Your task to perform on an android device: change notification settings in the gmail app Image 0: 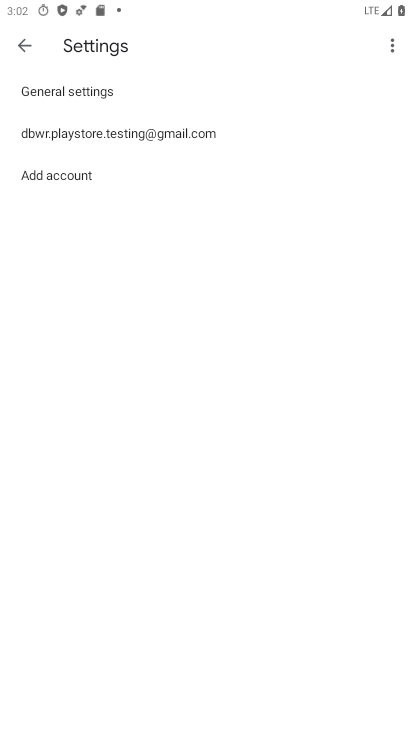
Step 0: click (102, 136)
Your task to perform on an android device: change notification settings in the gmail app Image 1: 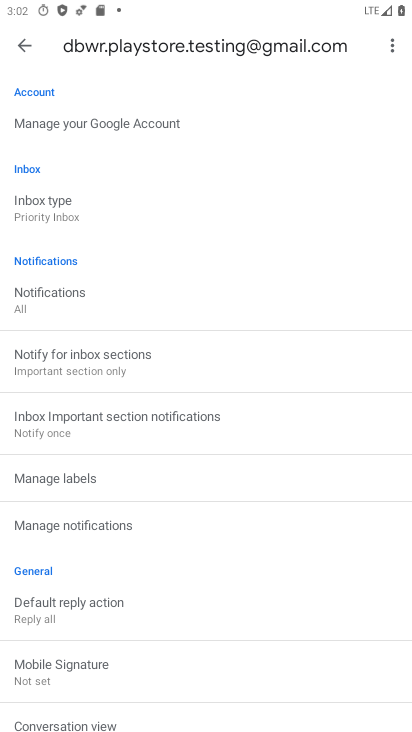
Step 1: click (79, 528)
Your task to perform on an android device: change notification settings in the gmail app Image 2: 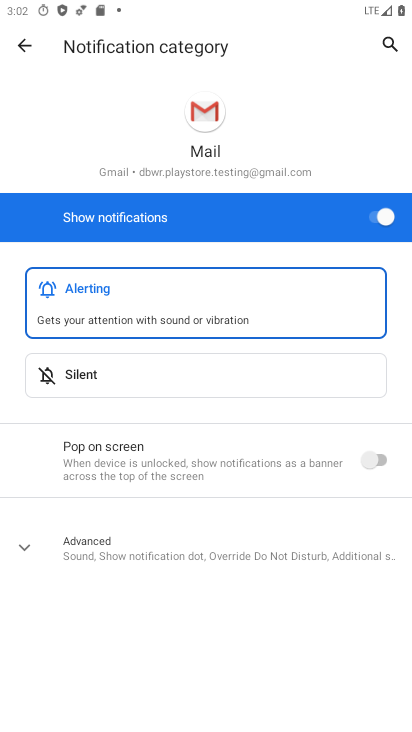
Step 2: click (377, 217)
Your task to perform on an android device: change notification settings in the gmail app Image 3: 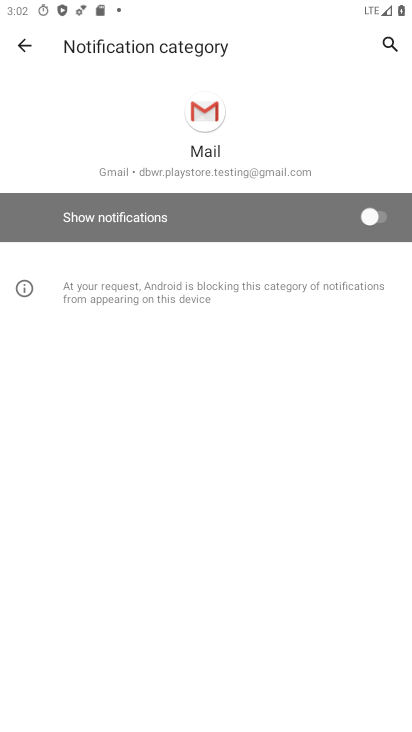
Step 3: task complete